Your task to perform on an android device: turn on location history Image 0: 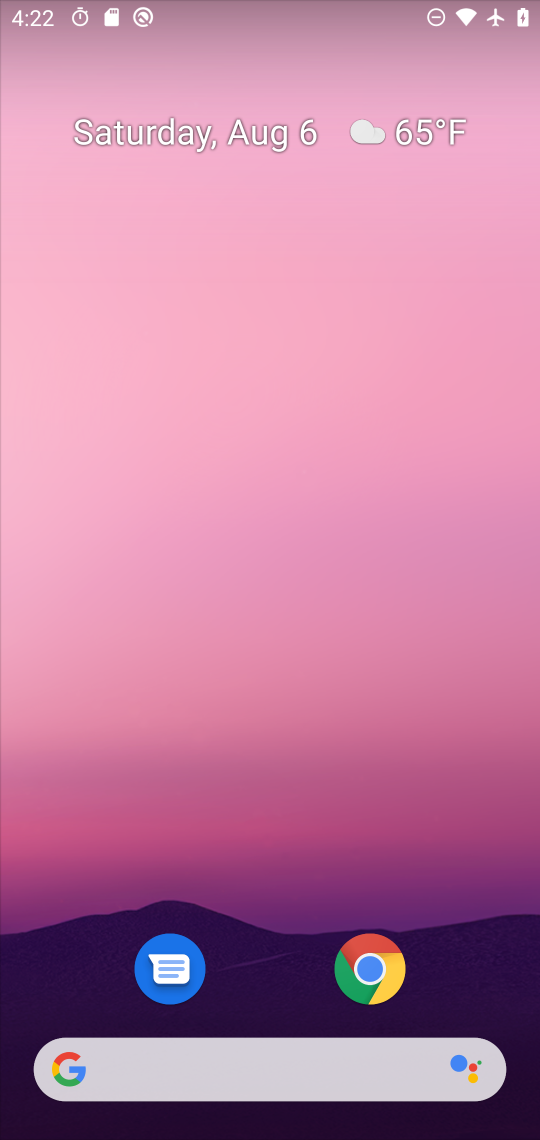
Step 0: press home button
Your task to perform on an android device: turn on location history Image 1: 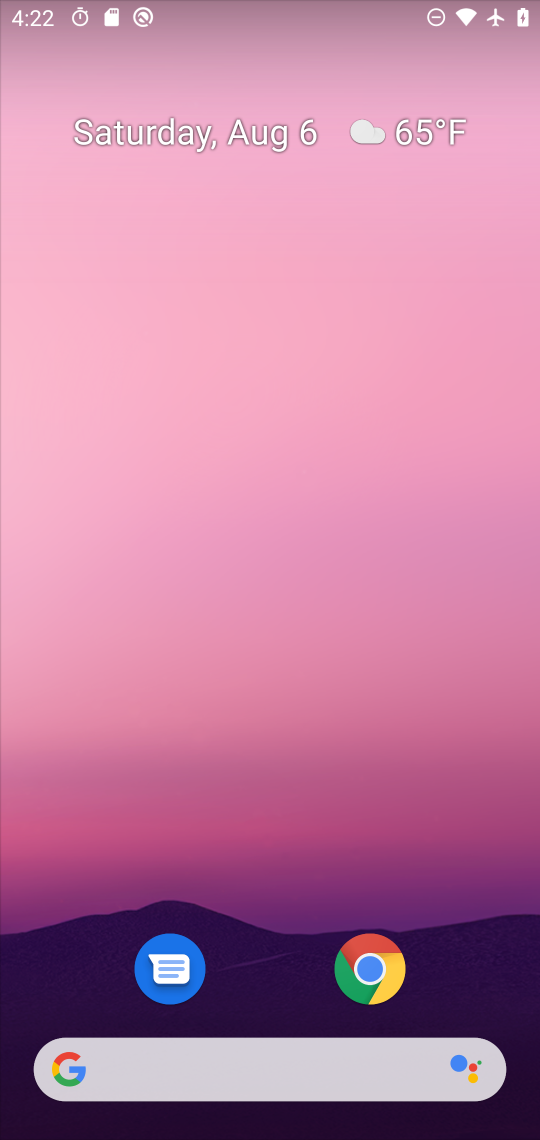
Step 1: drag from (277, 993) to (252, 69)
Your task to perform on an android device: turn on location history Image 2: 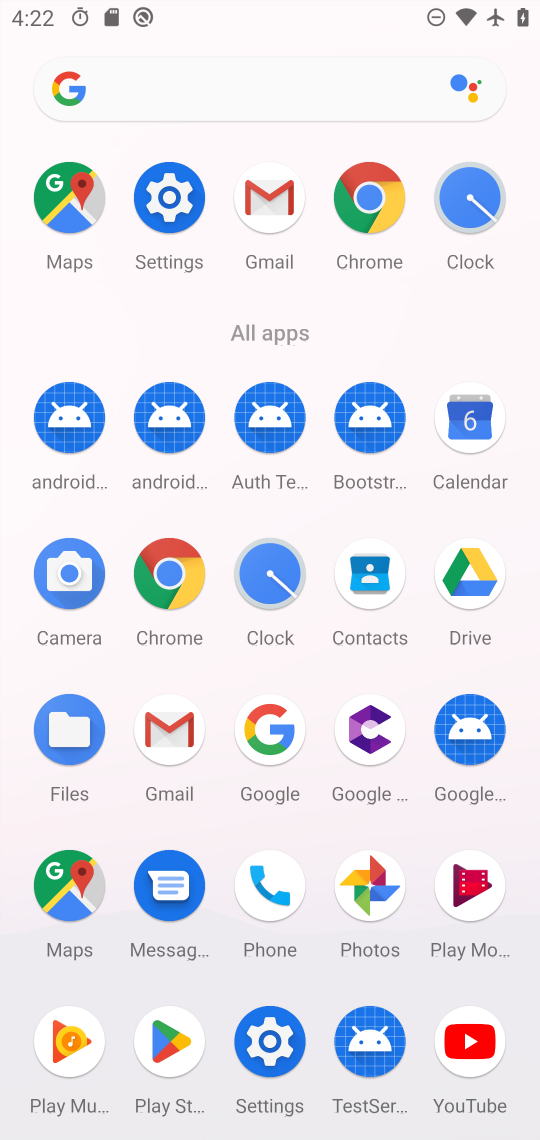
Step 2: click (181, 194)
Your task to perform on an android device: turn on location history Image 3: 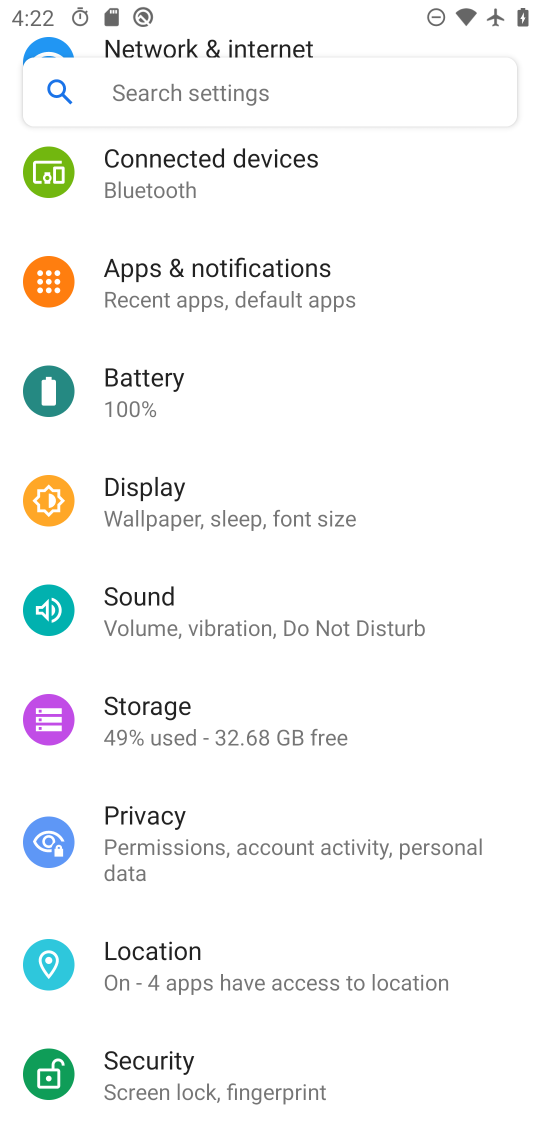
Step 3: drag from (191, 333) to (240, 299)
Your task to perform on an android device: turn on location history Image 4: 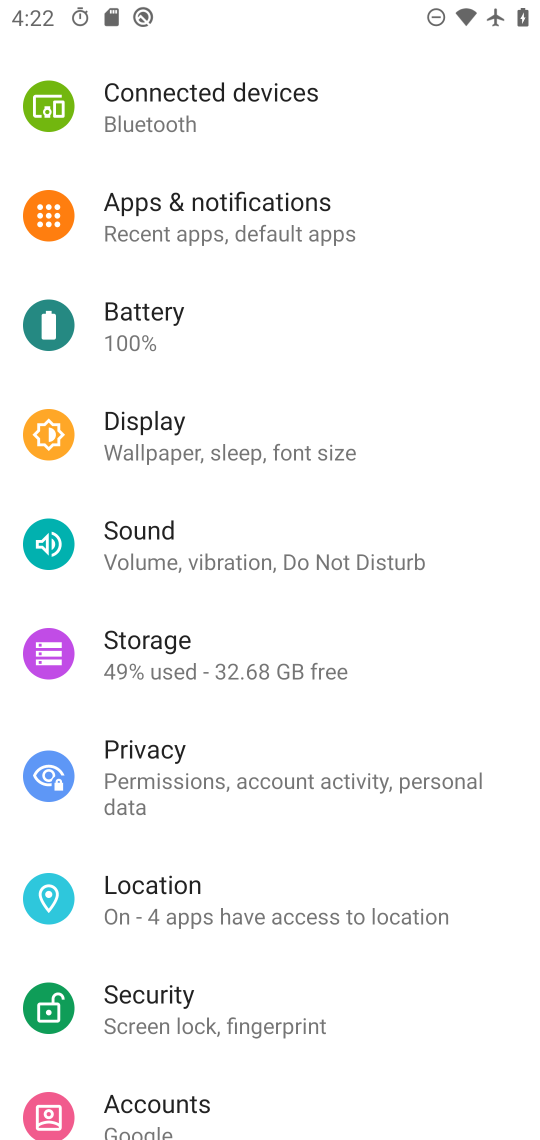
Step 4: click (84, 900)
Your task to perform on an android device: turn on location history Image 5: 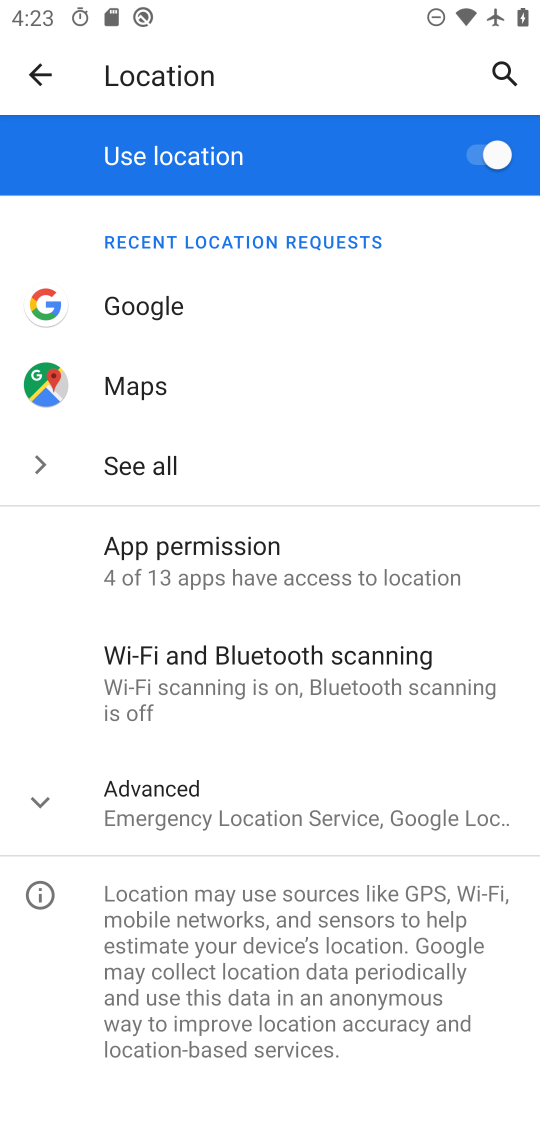
Step 5: click (51, 802)
Your task to perform on an android device: turn on location history Image 6: 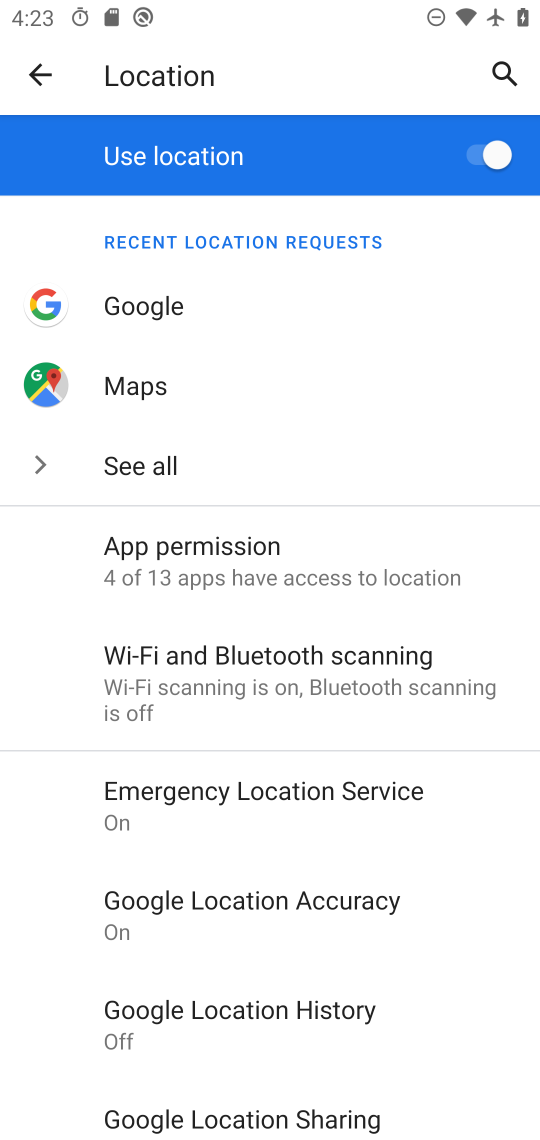
Step 6: click (319, 1003)
Your task to perform on an android device: turn on location history Image 7: 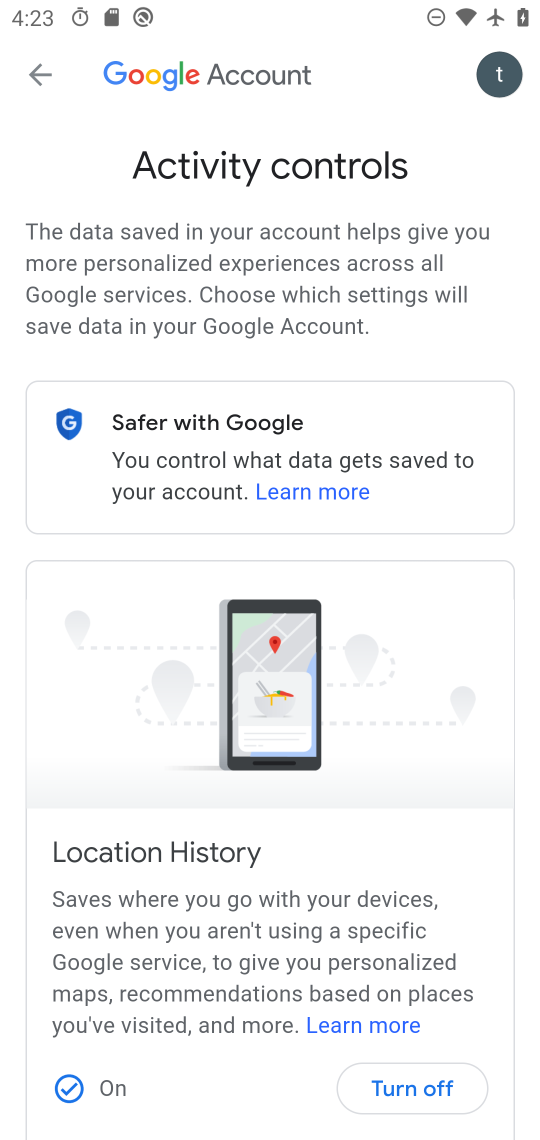
Step 7: click (402, 1069)
Your task to perform on an android device: turn on location history Image 8: 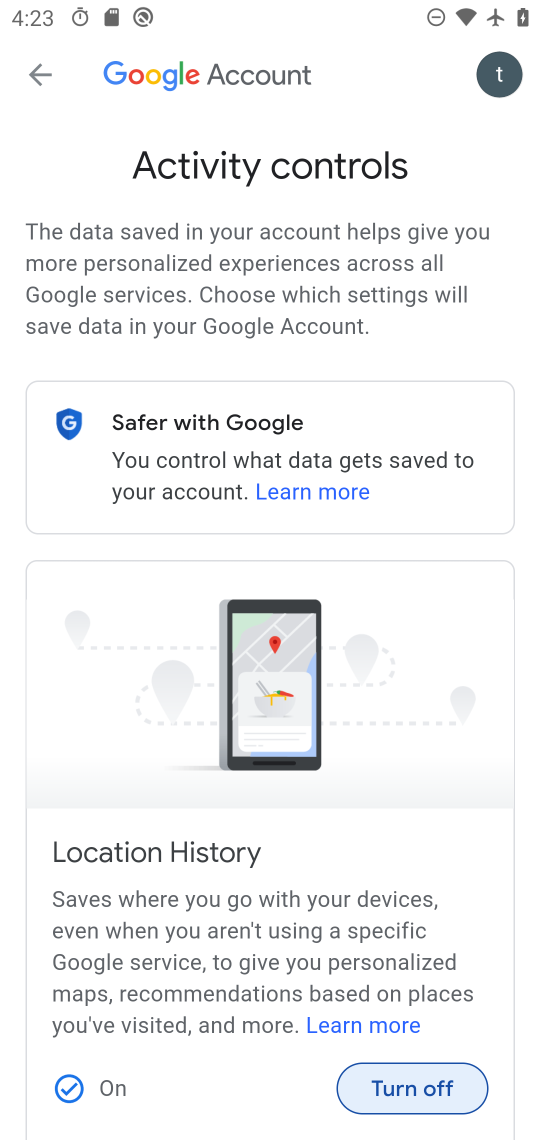
Step 8: click (379, 1082)
Your task to perform on an android device: turn on location history Image 9: 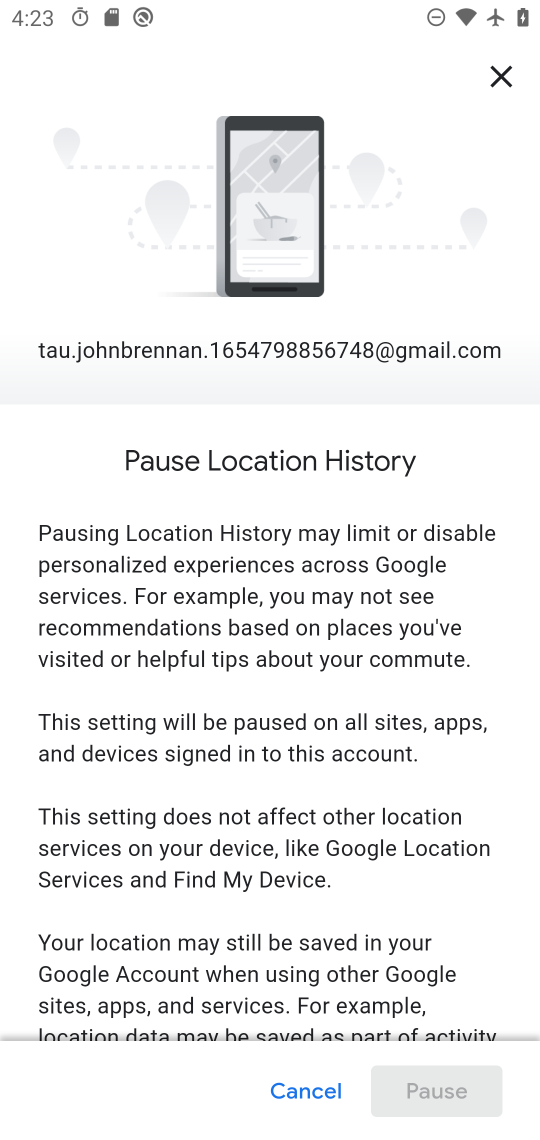
Step 9: drag from (454, 943) to (481, 132)
Your task to perform on an android device: turn on location history Image 10: 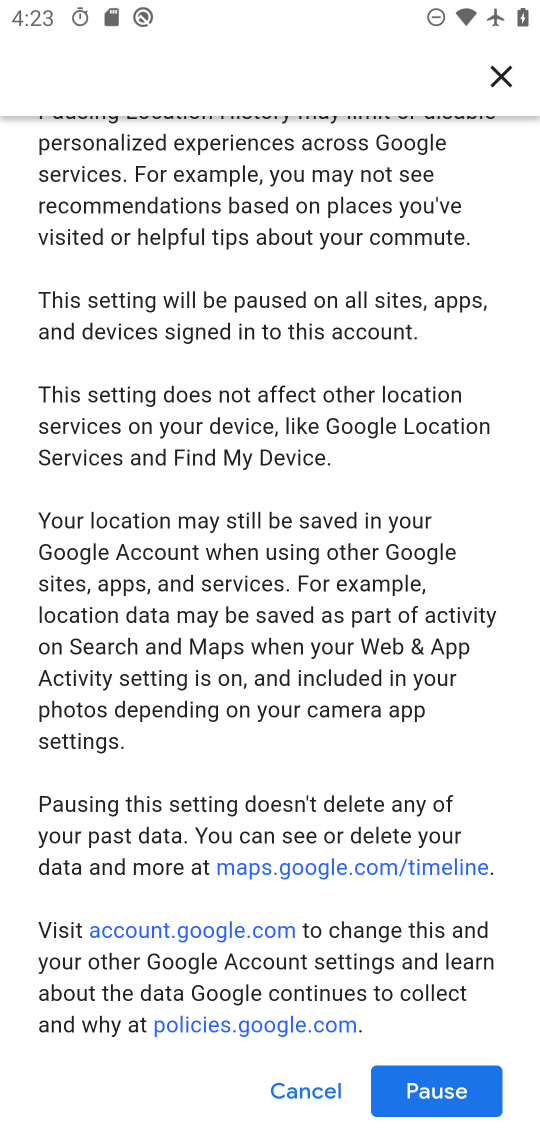
Step 10: click (426, 1086)
Your task to perform on an android device: turn on location history Image 11: 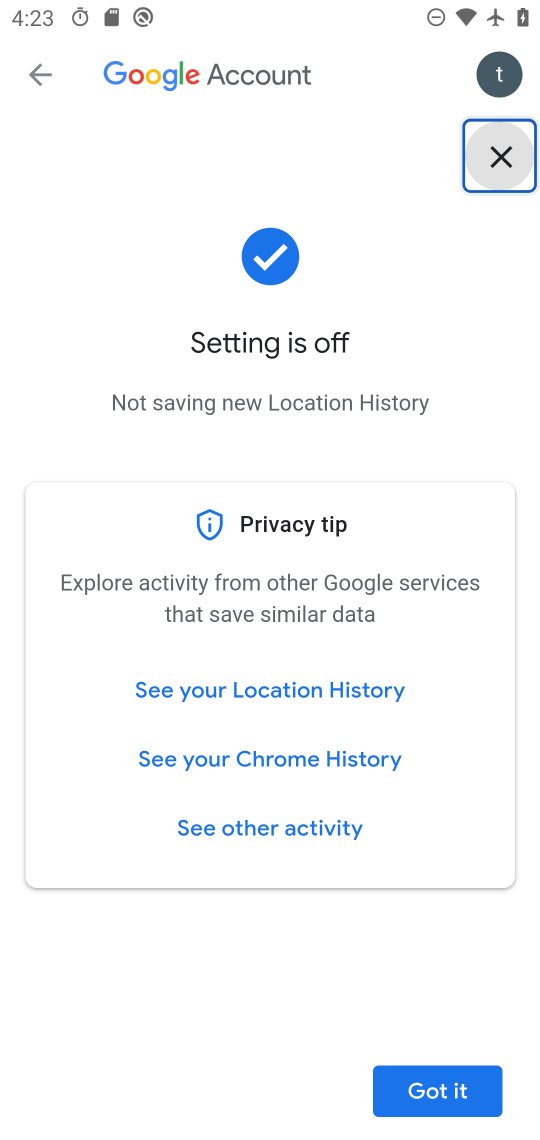
Step 11: click (426, 1086)
Your task to perform on an android device: turn on location history Image 12: 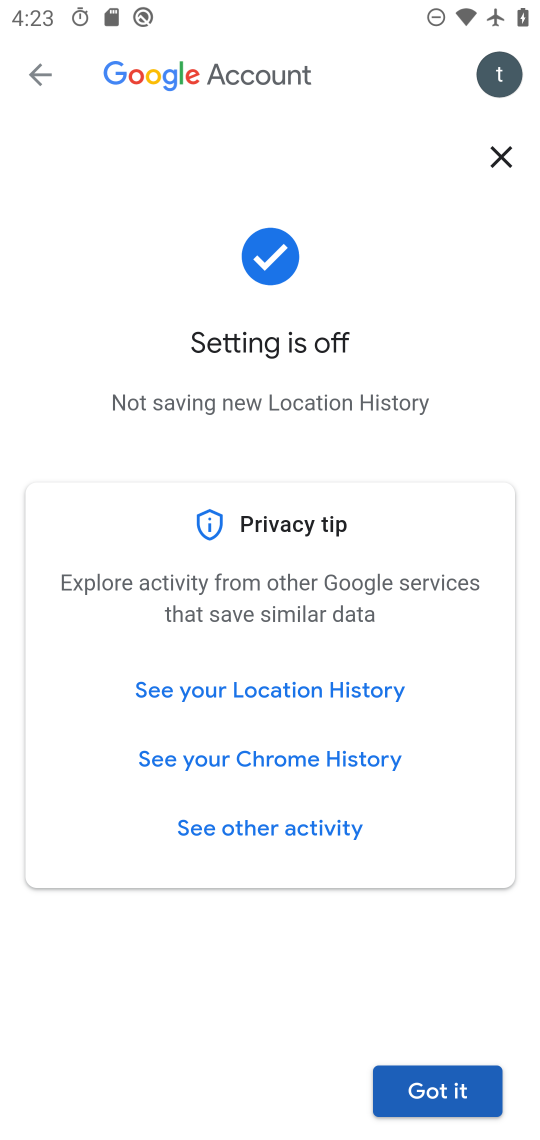
Step 12: click (470, 1093)
Your task to perform on an android device: turn on location history Image 13: 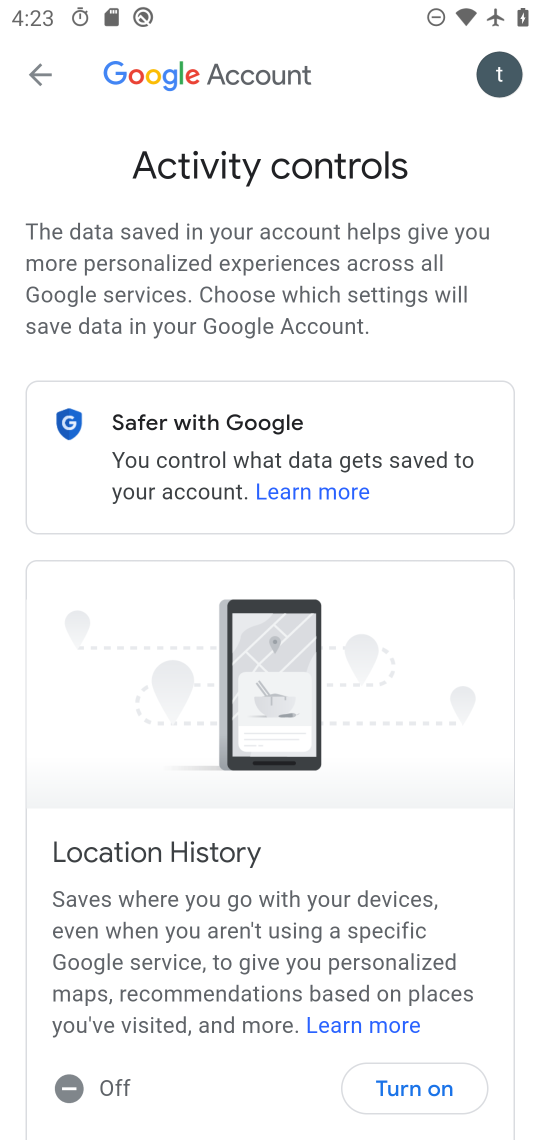
Step 13: task complete